Your task to perform on an android device: toggle pop-ups in chrome Image 0: 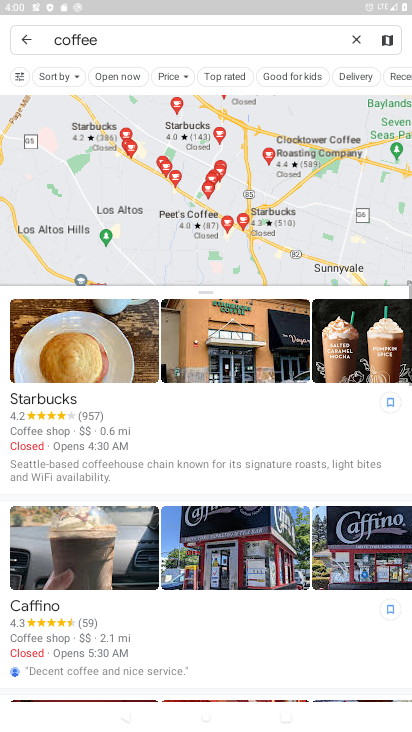
Step 0: press home button
Your task to perform on an android device: toggle pop-ups in chrome Image 1: 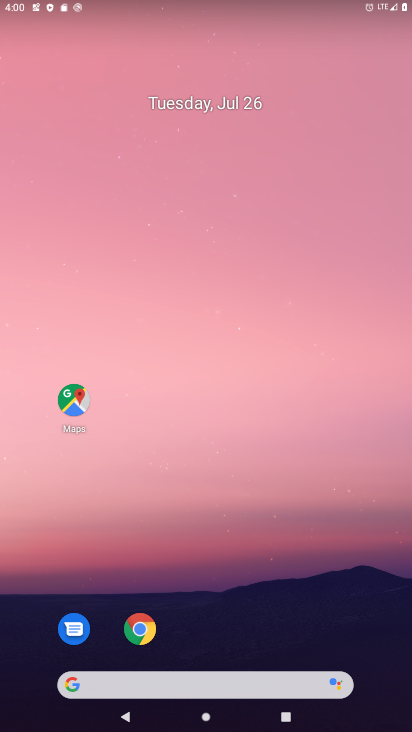
Step 1: drag from (221, 727) to (246, 191)
Your task to perform on an android device: toggle pop-ups in chrome Image 2: 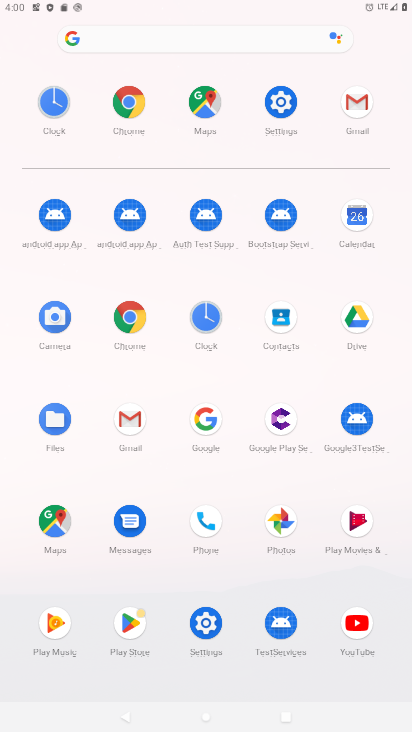
Step 2: click (126, 100)
Your task to perform on an android device: toggle pop-ups in chrome Image 3: 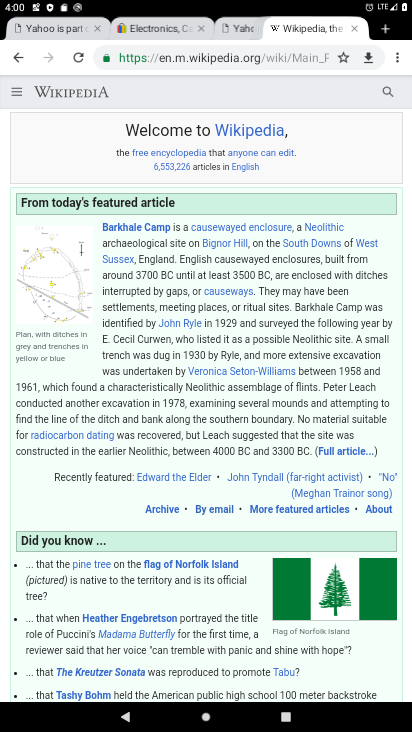
Step 3: click (399, 64)
Your task to perform on an android device: toggle pop-ups in chrome Image 4: 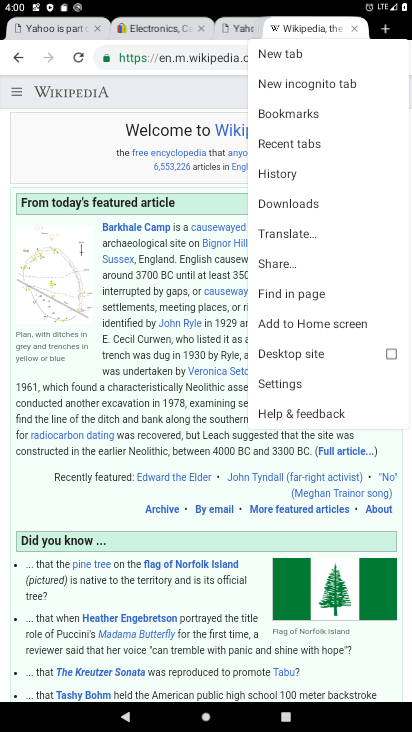
Step 4: click (280, 380)
Your task to perform on an android device: toggle pop-ups in chrome Image 5: 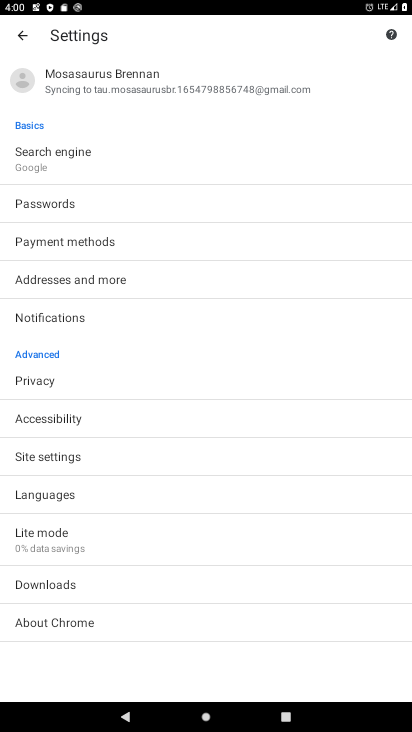
Step 5: click (59, 457)
Your task to perform on an android device: toggle pop-ups in chrome Image 6: 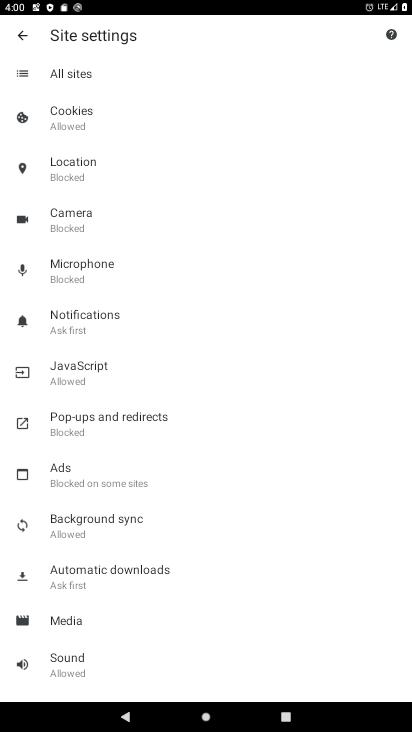
Step 6: click (77, 418)
Your task to perform on an android device: toggle pop-ups in chrome Image 7: 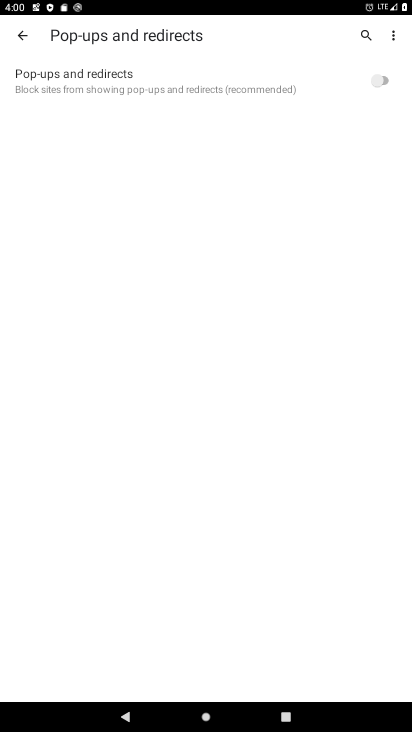
Step 7: click (390, 78)
Your task to perform on an android device: toggle pop-ups in chrome Image 8: 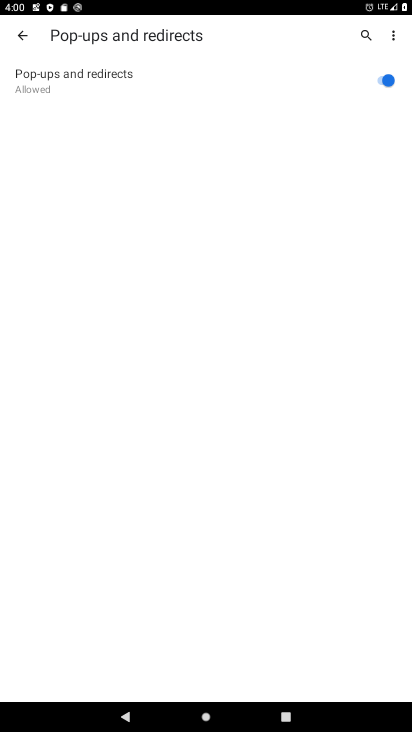
Step 8: task complete